Your task to perform on an android device: empty trash in the gmail app Image 0: 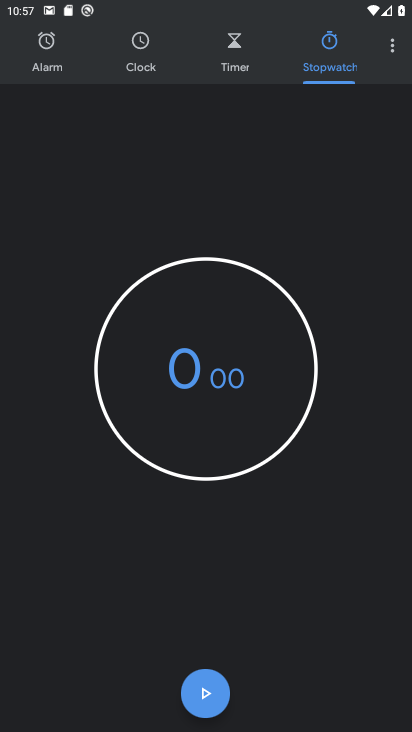
Step 0: press home button
Your task to perform on an android device: empty trash in the gmail app Image 1: 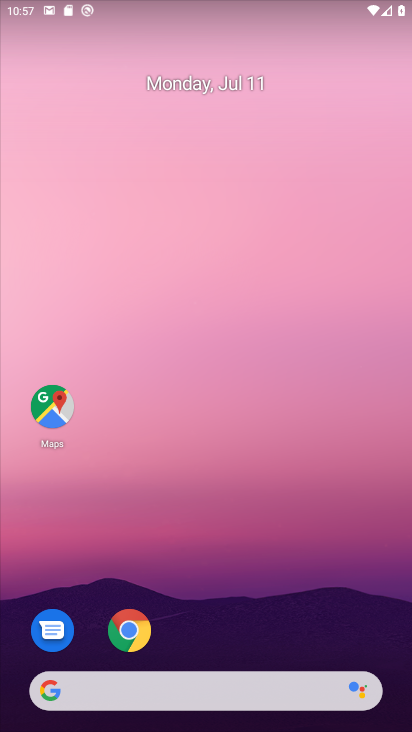
Step 1: drag from (289, 629) to (310, 111)
Your task to perform on an android device: empty trash in the gmail app Image 2: 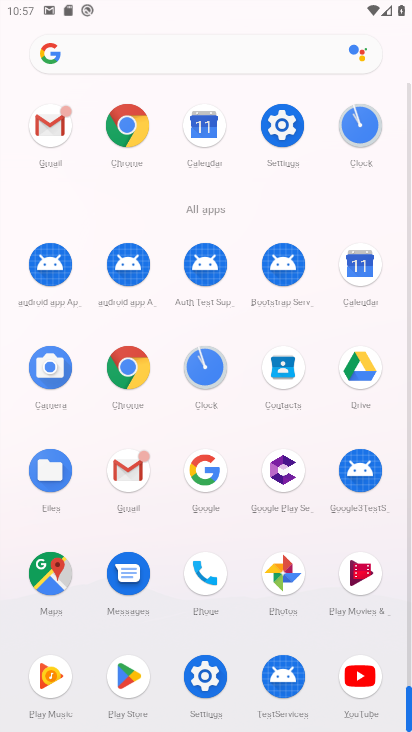
Step 2: click (128, 482)
Your task to perform on an android device: empty trash in the gmail app Image 3: 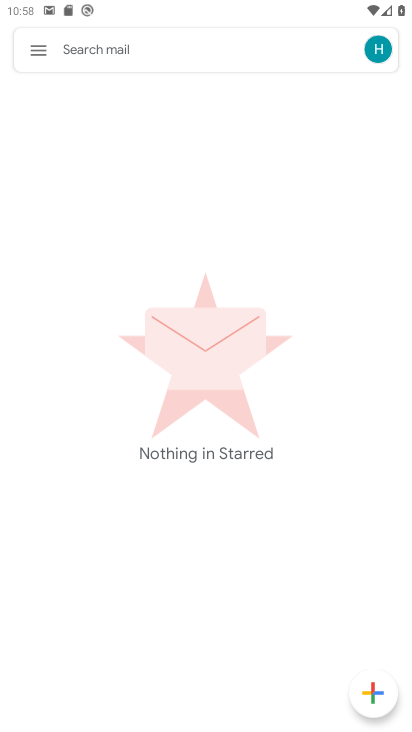
Step 3: click (40, 59)
Your task to perform on an android device: empty trash in the gmail app Image 4: 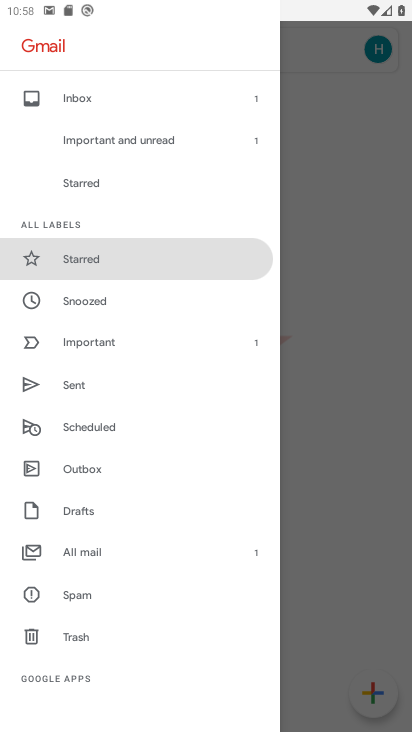
Step 4: click (83, 648)
Your task to perform on an android device: empty trash in the gmail app Image 5: 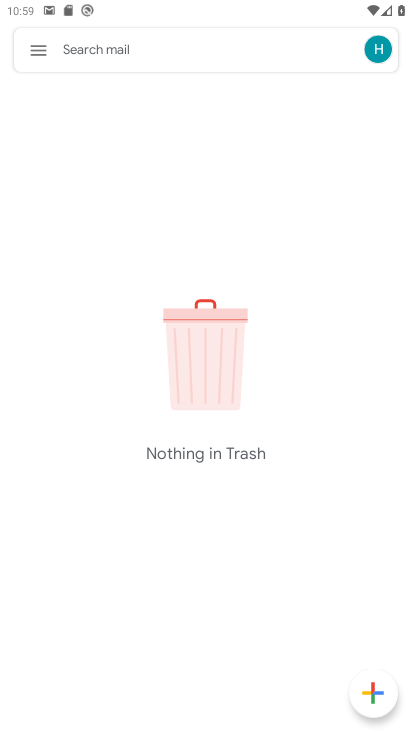
Step 5: task complete